Your task to perform on an android device: open app "Nova Launcher" (install if not already installed) Image 0: 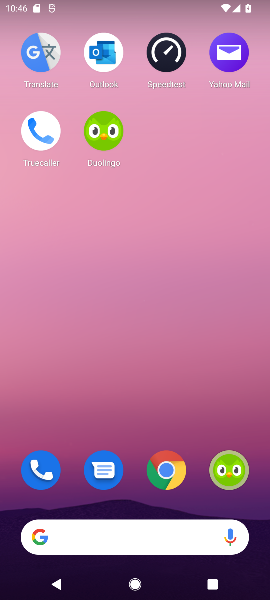
Step 0: drag from (216, 506) to (186, 54)
Your task to perform on an android device: open app "Nova Launcher" (install if not already installed) Image 1: 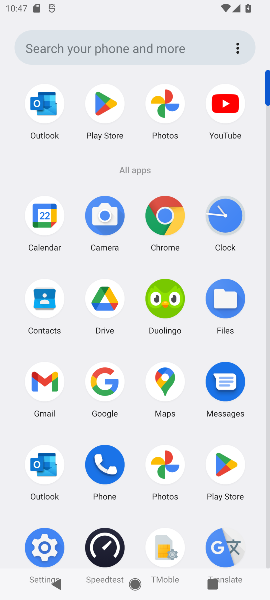
Step 1: click (223, 477)
Your task to perform on an android device: open app "Nova Launcher" (install if not already installed) Image 2: 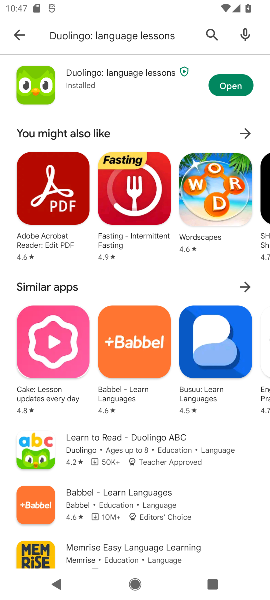
Step 2: press back button
Your task to perform on an android device: open app "Nova Launcher" (install if not already installed) Image 3: 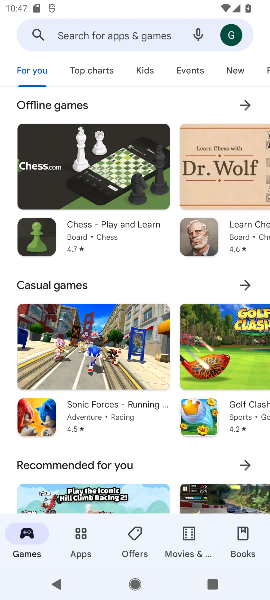
Step 3: click (83, 28)
Your task to perform on an android device: open app "Nova Launcher" (install if not already installed) Image 4: 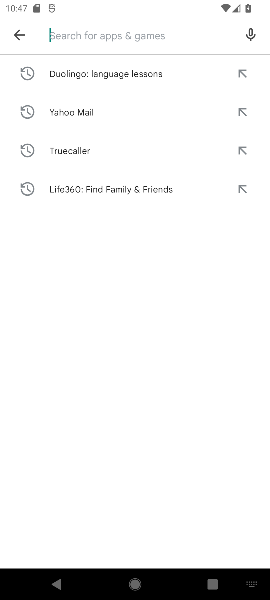
Step 4: type "Nova Launcher"
Your task to perform on an android device: open app "Nova Launcher" (install if not already installed) Image 5: 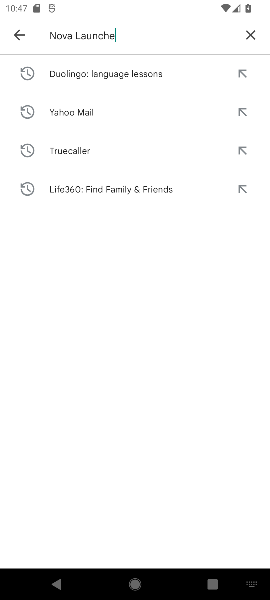
Step 5: press enter
Your task to perform on an android device: open app "Nova Launcher" (install if not already installed) Image 6: 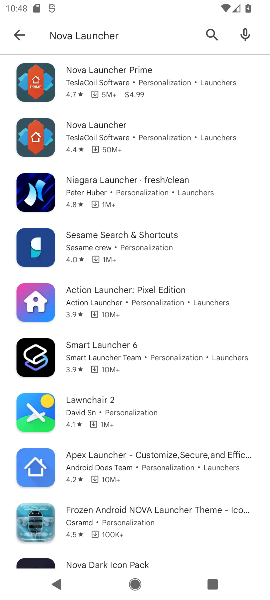
Step 6: click (133, 143)
Your task to perform on an android device: open app "Nova Launcher" (install if not already installed) Image 7: 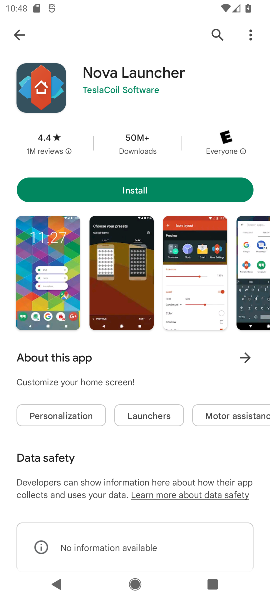
Step 7: click (113, 184)
Your task to perform on an android device: open app "Nova Launcher" (install if not already installed) Image 8: 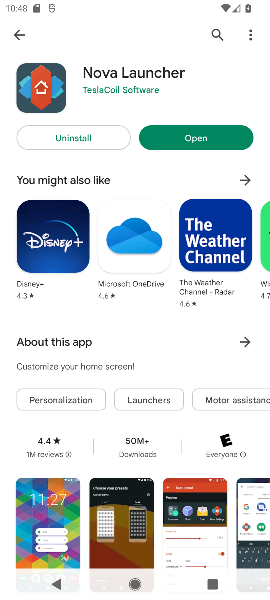
Step 8: click (179, 126)
Your task to perform on an android device: open app "Nova Launcher" (install if not already installed) Image 9: 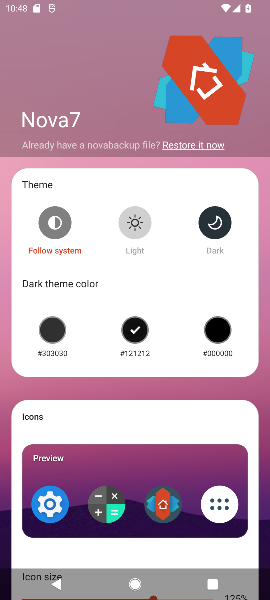
Step 9: task complete